Your task to perform on an android device: turn off data saver in the chrome app Image 0: 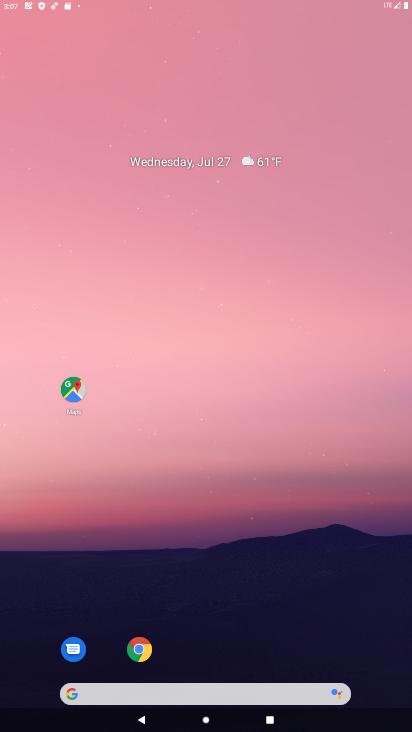
Step 0: click (180, 33)
Your task to perform on an android device: turn off data saver in the chrome app Image 1: 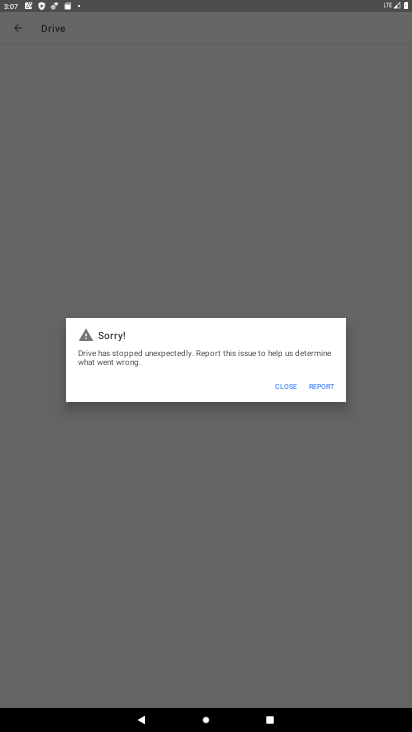
Step 1: press home button
Your task to perform on an android device: turn off data saver in the chrome app Image 2: 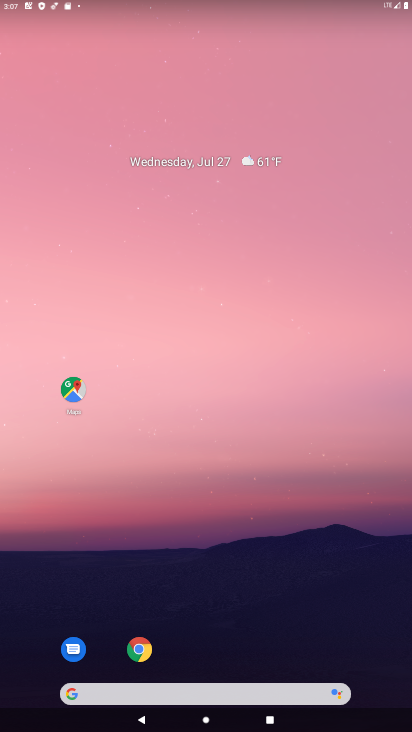
Step 2: click (144, 649)
Your task to perform on an android device: turn off data saver in the chrome app Image 3: 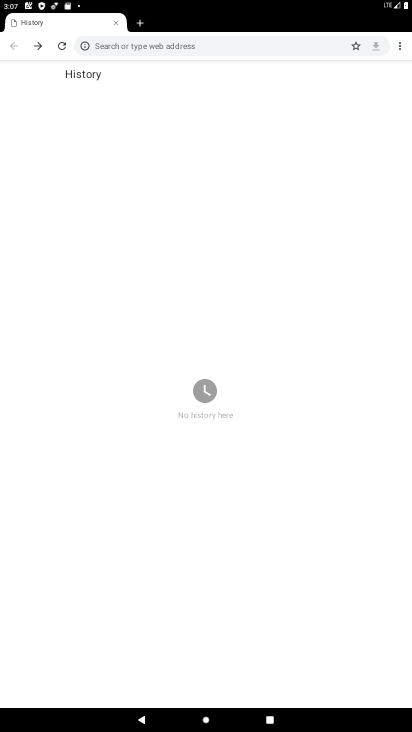
Step 3: click (398, 48)
Your task to perform on an android device: turn off data saver in the chrome app Image 4: 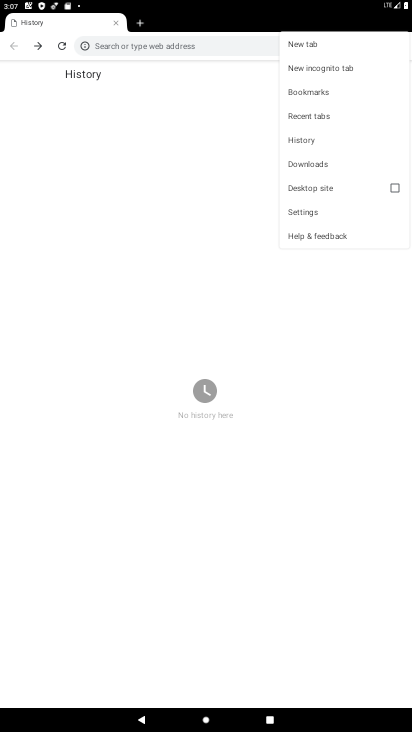
Step 4: click (308, 209)
Your task to perform on an android device: turn off data saver in the chrome app Image 5: 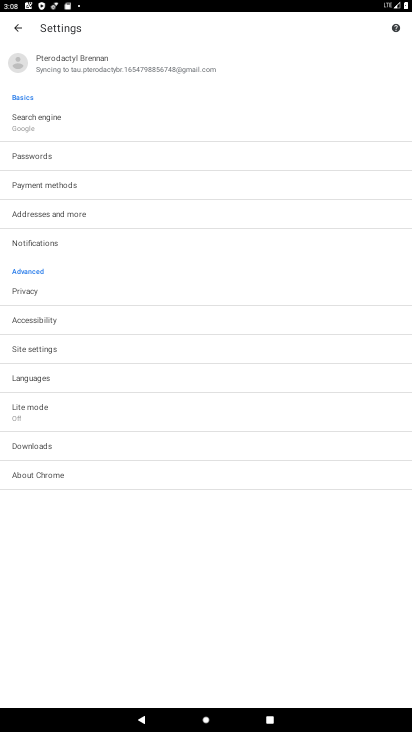
Step 5: click (38, 413)
Your task to perform on an android device: turn off data saver in the chrome app Image 6: 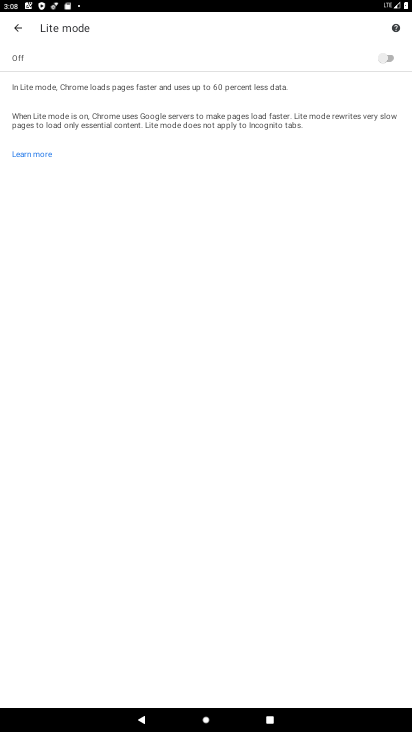
Step 6: task complete